Your task to perform on an android device: Go to CNN.com Image 0: 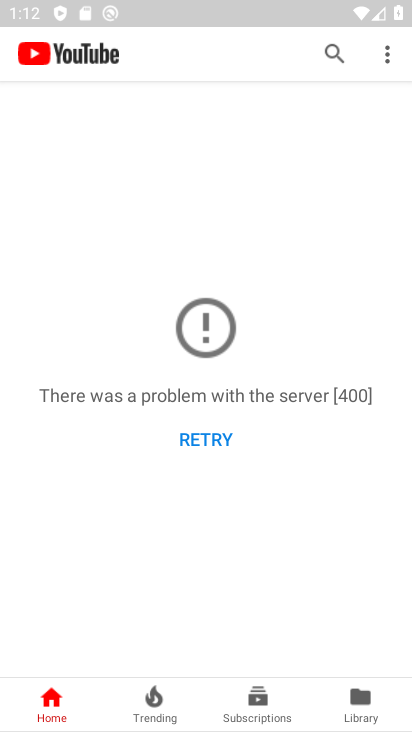
Step 0: press back button
Your task to perform on an android device: Go to CNN.com Image 1: 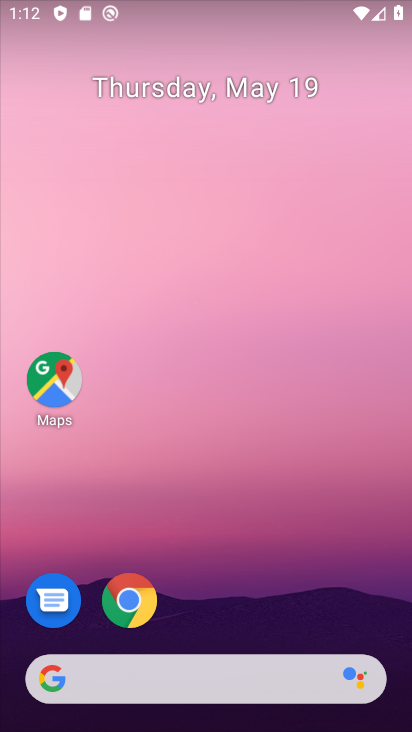
Step 1: click (138, 603)
Your task to perform on an android device: Go to CNN.com Image 2: 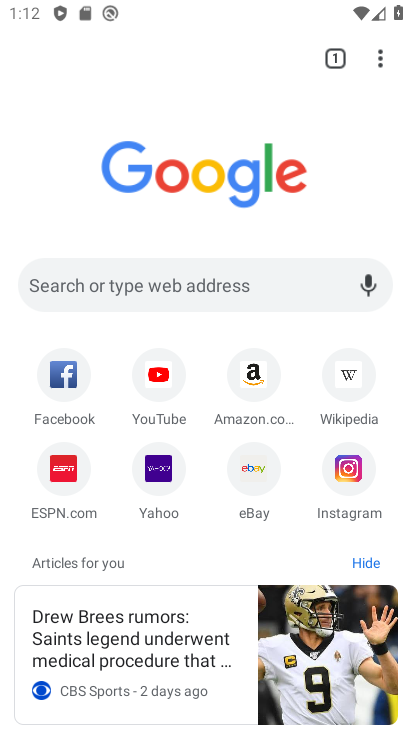
Step 2: click (201, 288)
Your task to perform on an android device: Go to CNN.com Image 3: 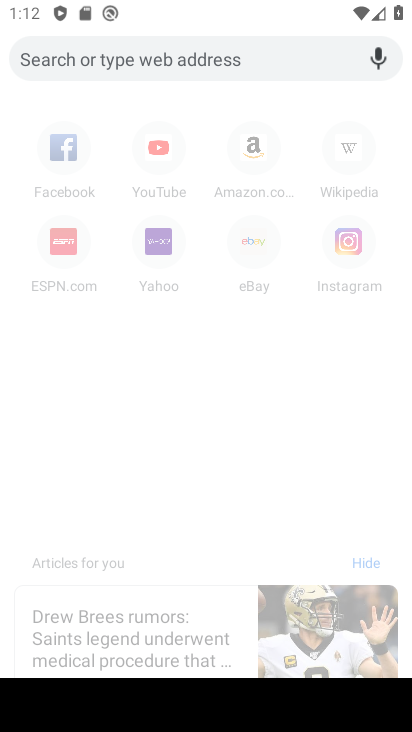
Step 3: type "cnn.com"
Your task to perform on an android device: Go to CNN.com Image 4: 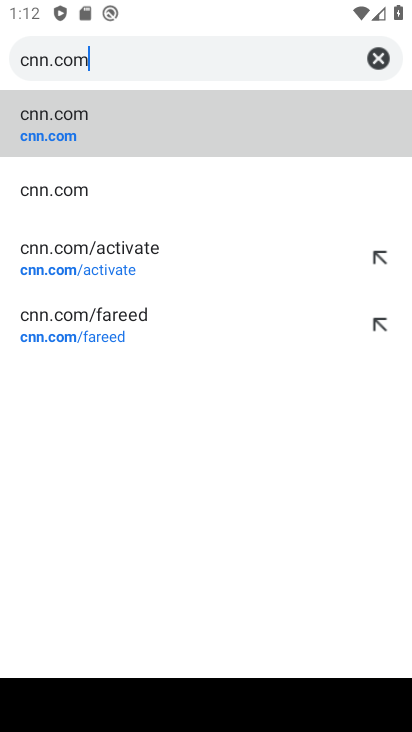
Step 4: click (68, 129)
Your task to perform on an android device: Go to CNN.com Image 5: 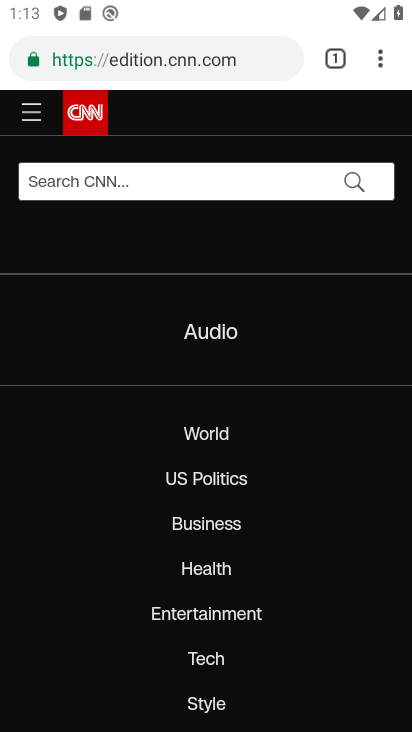
Step 5: task complete